Your task to perform on an android device: Turn off the flashlight Image 0: 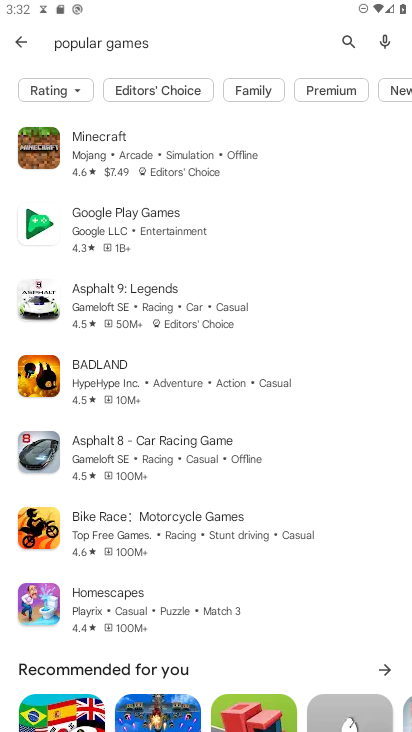
Step 0: press home button
Your task to perform on an android device: Turn off the flashlight Image 1: 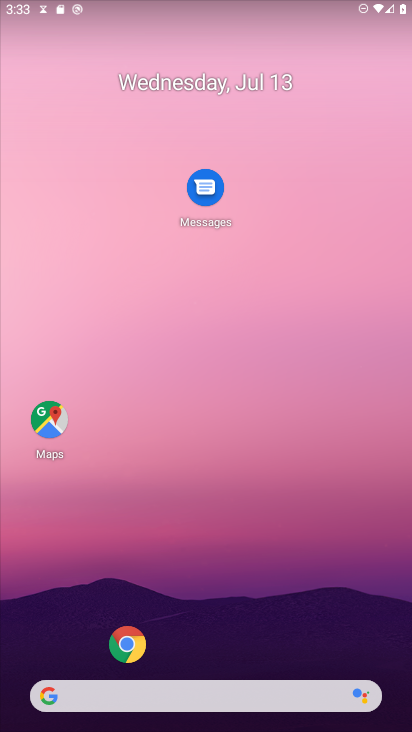
Step 1: drag from (17, 709) to (209, 149)
Your task to perform on an android device: Turn off the flashlight Image 2: 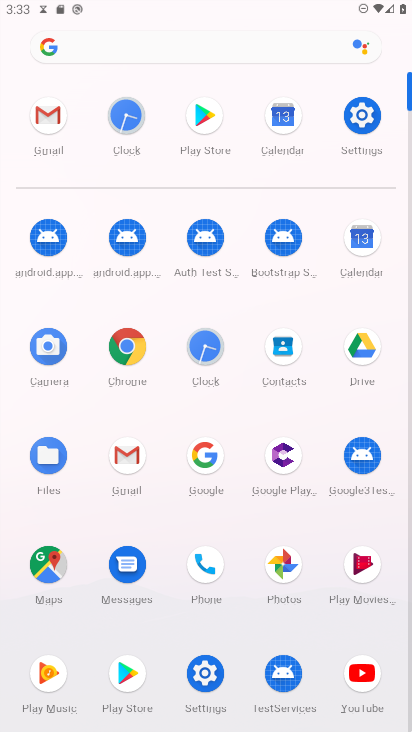
Step 2: click (185, 685)
Your task to perform on an android device: Turn off the flashlight Image 3: 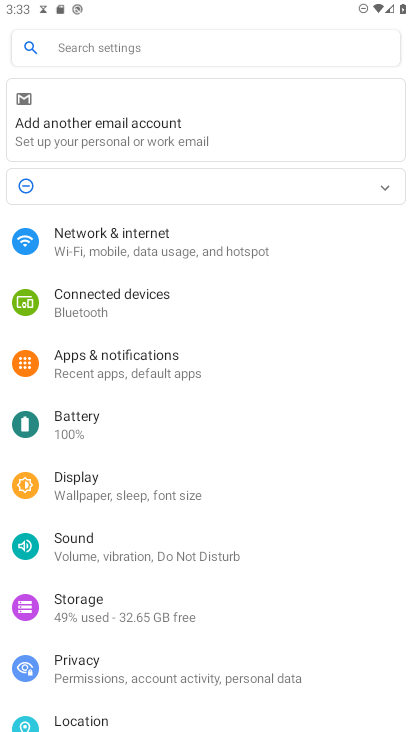
Step 3: click (96, 370)
Your task to perform on an android device: Turn off the flashlight Image 4: 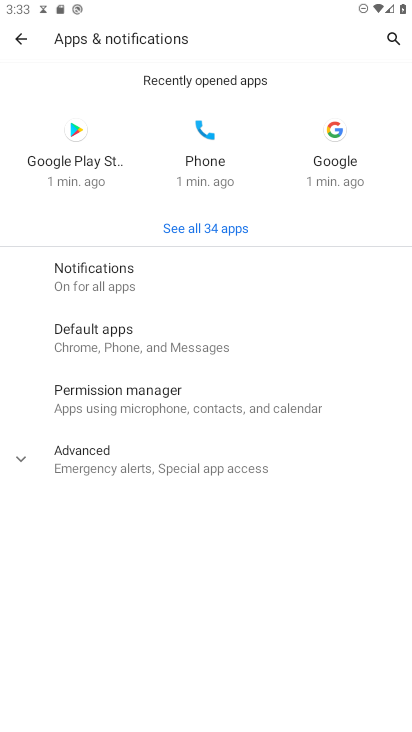
Step 4: task complete